Your task to perform on an android device: Search for top rated burger restaurants on Maps Image 0: 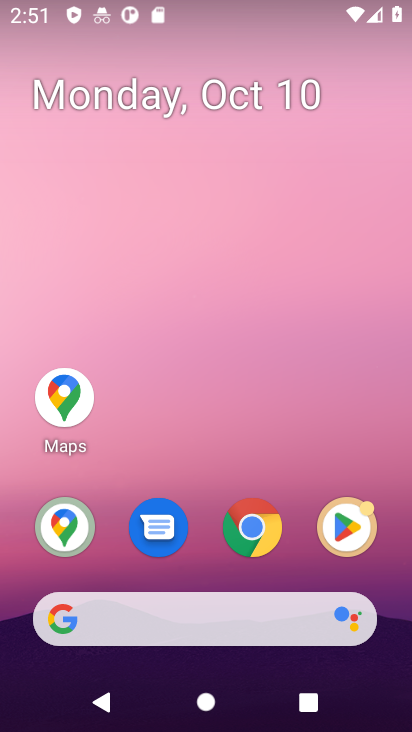
Step 0: click (60, 399)
Your task to perform on an android device: Search for top rated burger restaurants on Maps Image 1: 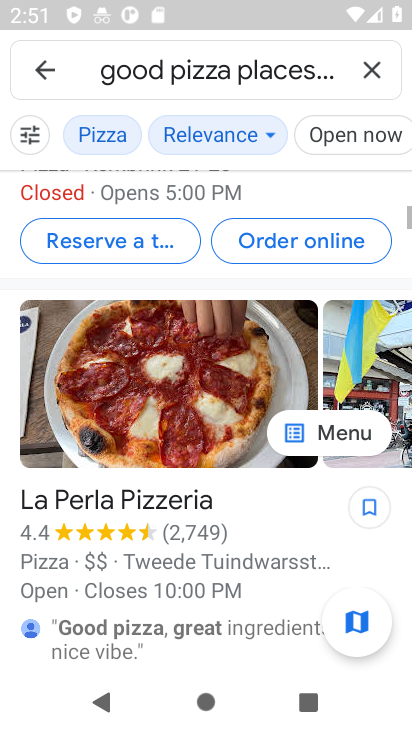
Step 1: click (368, 67)
Your task to perform on an android device: Search for top rated burger restaurants on Maps Image 2: 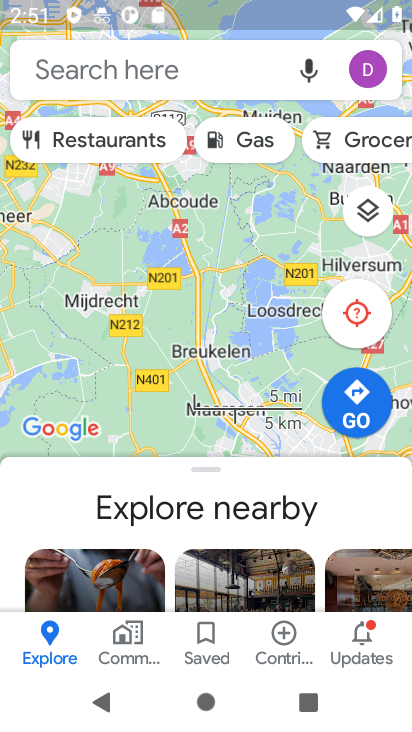
Step 2: click (228, 64)
Your task to perform on an android device: Search for top rated burger restaurants on Maps Image 3: 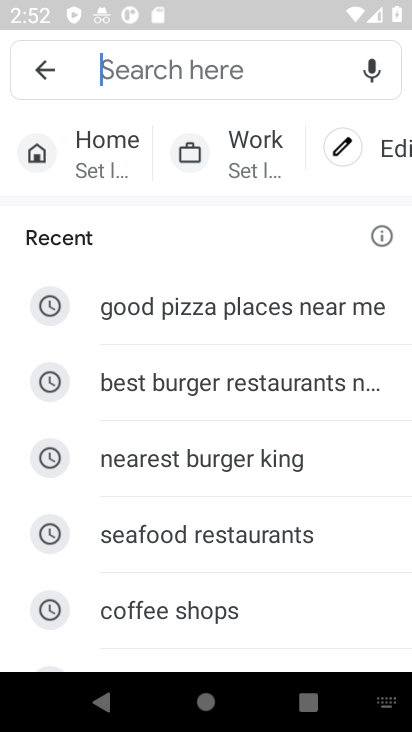
Step 3: type "burger restaurants"
Your task to perform on an android device: Search for top rated burger restaurants on Maps Image 4: 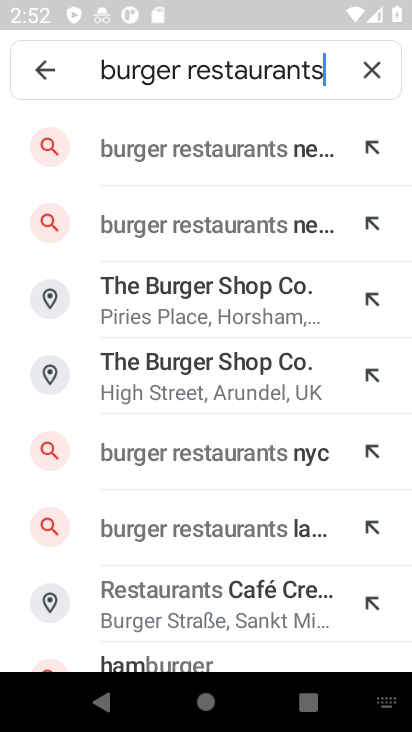
Step 4: click (220, 149)
Your task to perform on an android device: Search for top rated burger restaurants on Maps Image 5: 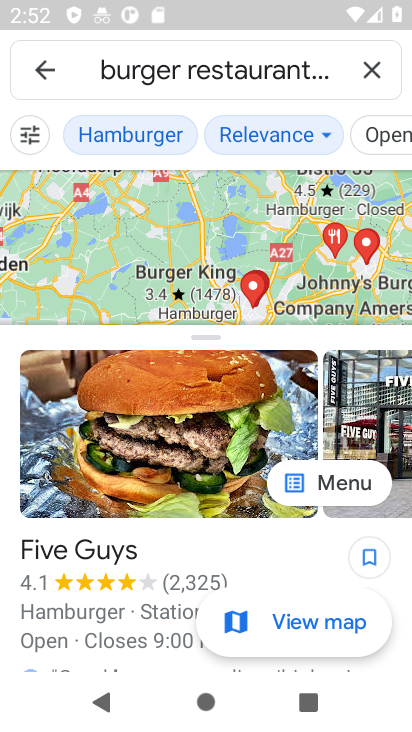
Step 5: drag from (391, 144) to (95, 164)
Your task to perform on an android device: Search for top rated burger restaurants on Maps Image 6: 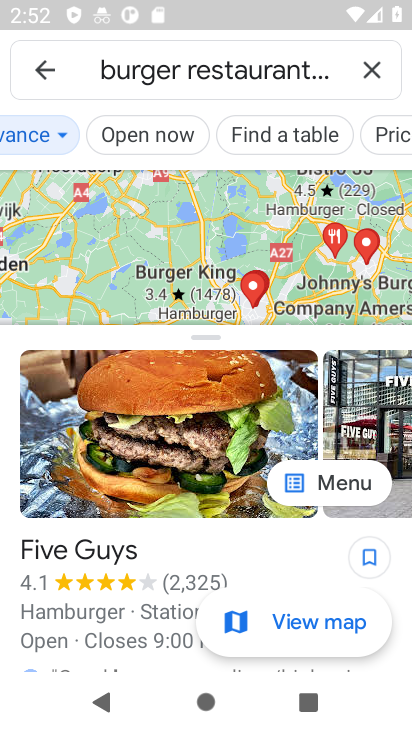
Step 6: drag from (406, 140) to (227, 140)
Your task to perform on an android device: Search for top rated burger restaurants on Maps Image 7: 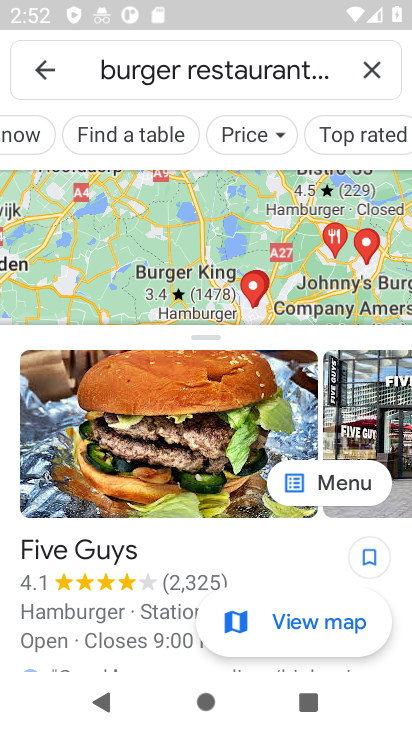
Step 7: click (342, 137)
Your task to perform on an android device: Search for top rated burger restaurants on Maps Image 8: 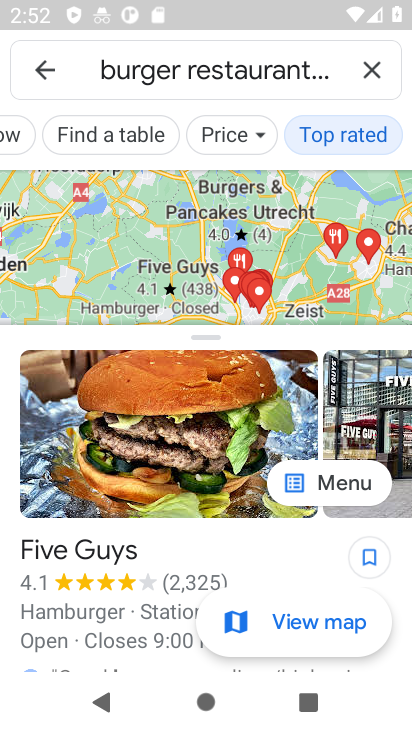
Step 8: task complete